Your task to perform on an android device: Show me popular videos on Youtube Image 0: 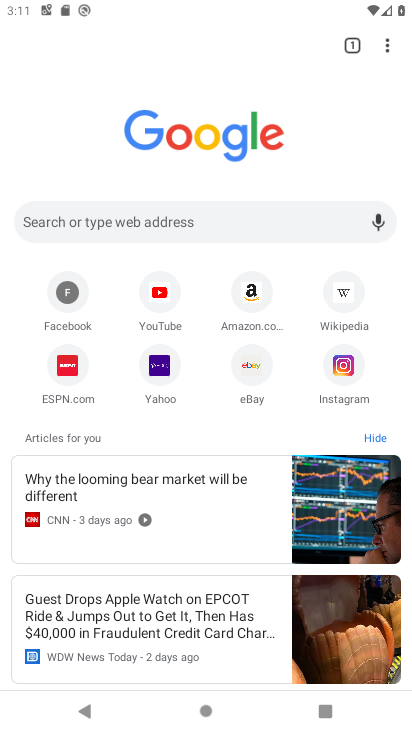
Step 0: drag from (191, 434) to (219, 100)
Your task to perform on an android device: Show me popular videos on Youtube Image 1: 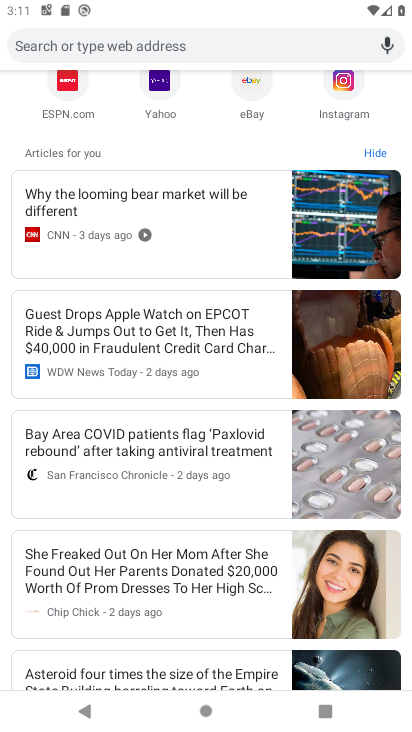
Step 1: drag from (199, 127) to (197, 655)
Your task to perform on an android device: Show me popular videos on Youtube Image 2: 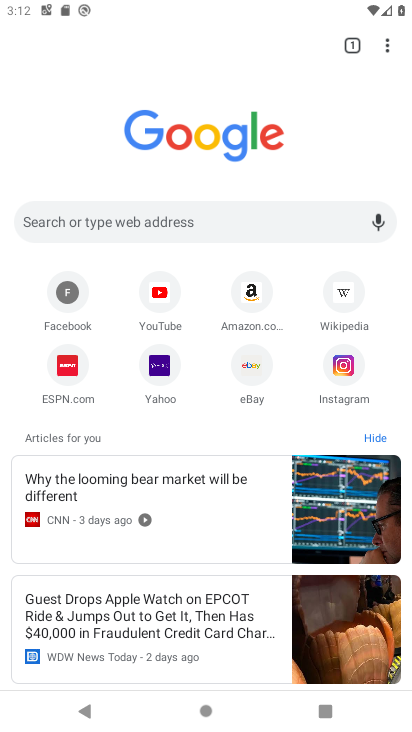
Step 2: drag from (194, 420) to (201, 154)
Your task to perform on an android device: Show me popular videos on Youtube Image 3: 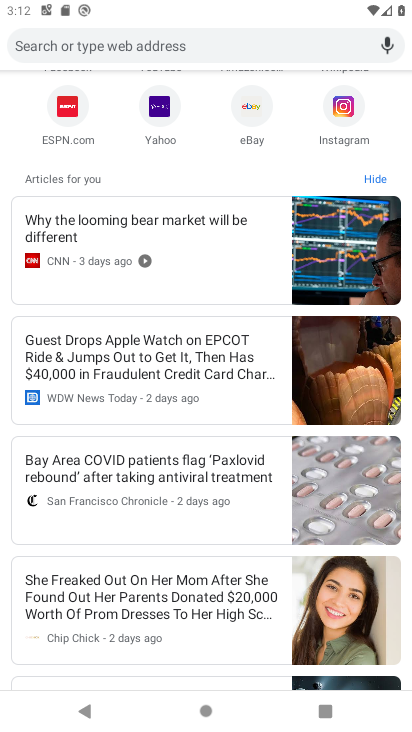
Step 3: drag from (202, 172) to (300, 729)
Your task to perform on an android device: Show me popular videos on Youtube Image 4: 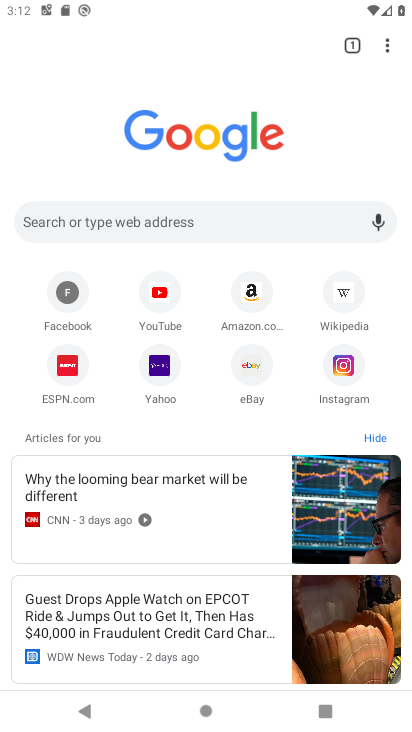
Step 4: press home button
Your task to perform on an android device: Show me popular videos on Youtube Image 5: 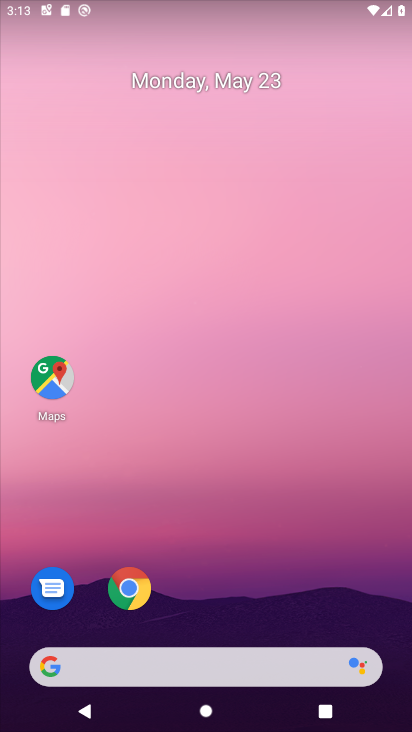
Step 5: drag from (243, 614) to (273, 182)
Your task to perform on an android device: Show me popular videos on Youtube Image 6: 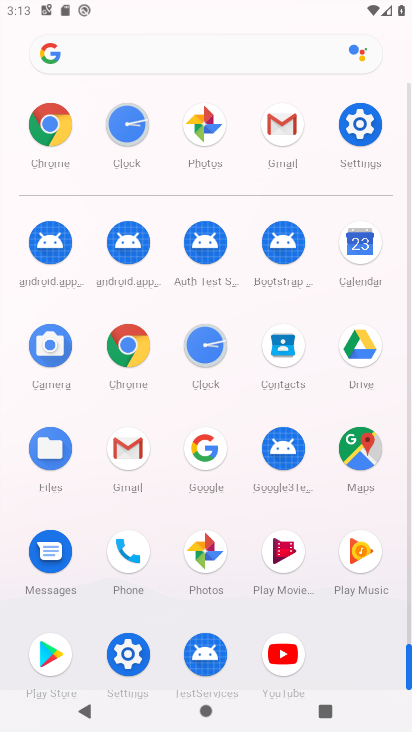
Step 6: click (281, 653)
Your task to perform on an android device: Show me popular videos on Youtube Image 7: 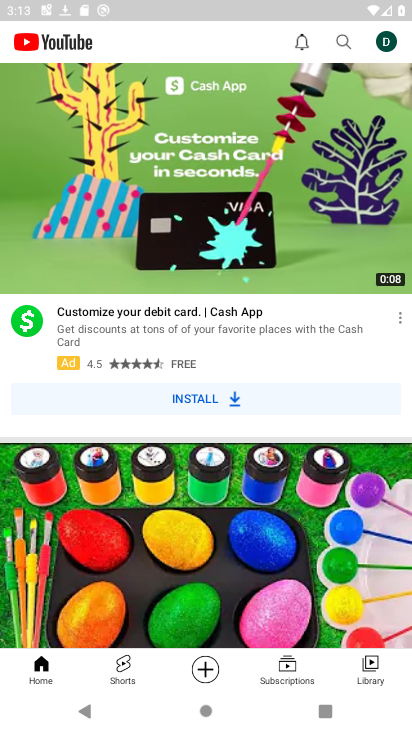
Step 7: task complete